Your task to perform on an android device: open a new tab in the chrome app Image 0: 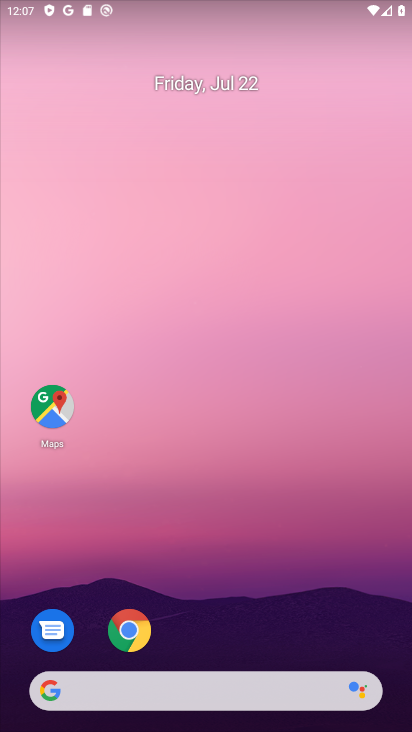
Step 0: click (132, 626)
Your task to perform on an android device: open a new tab in the chrome app Image 1: 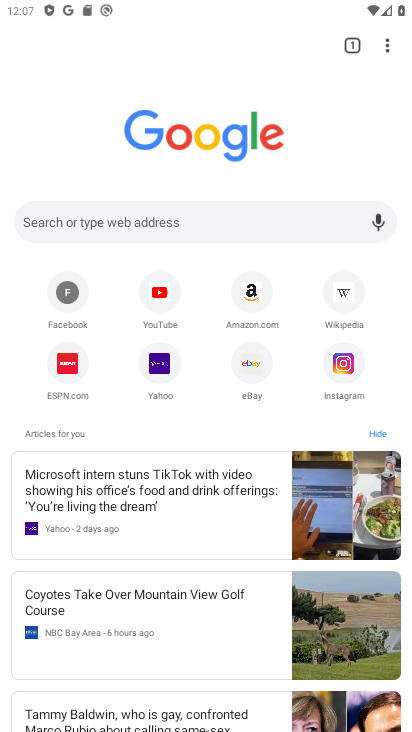
Step 1: click (354, 43)
Your task to perform on an android device: open a new tab in the chrome app Image 2: 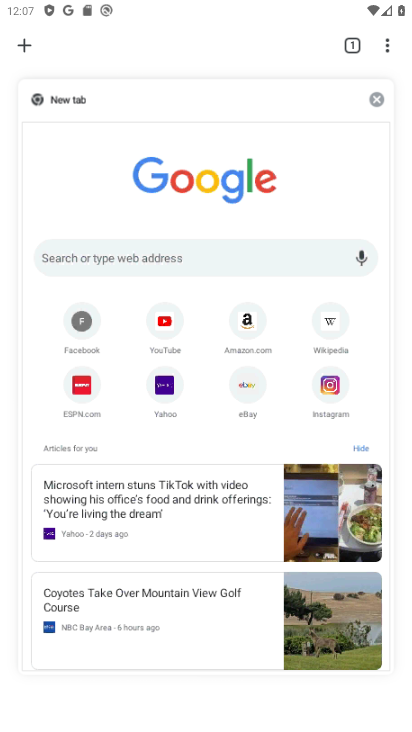
Step 2: click (27, 39)
Your task to perform on an android device: open a new tab in the chrome app Image 3: 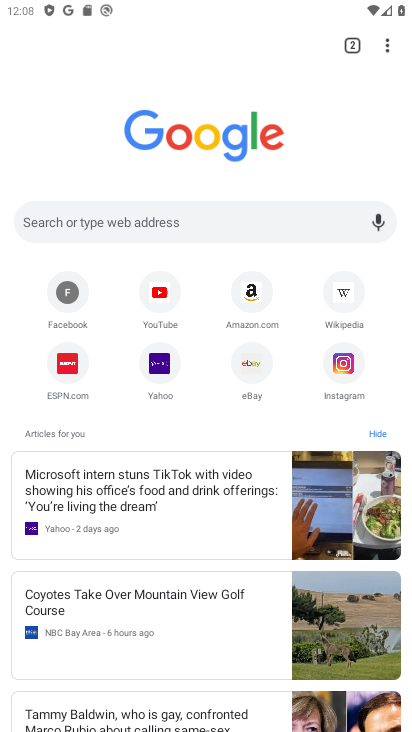
Step 3: task complete